Your task to perform on an android device: uninstall "Venmo" Image 0: 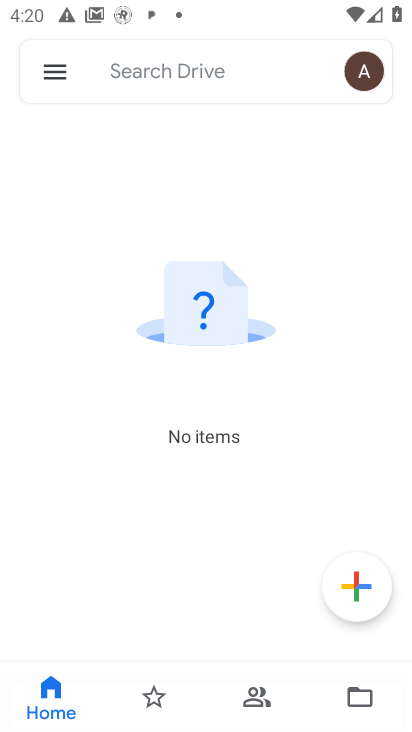
Step 0: press home button
Your task to perform on an android device: uninstall "Venmo" Image 1: 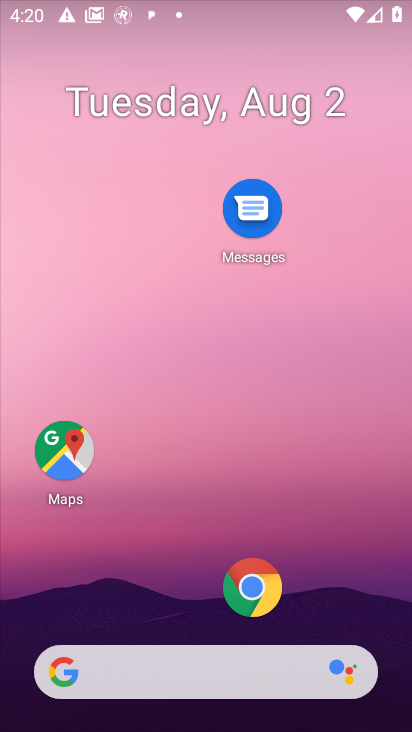
Step 1: drag from (185, 588) to (212, 99)
Your task to perform on an android device: uninstall "Venmo" Image 2: 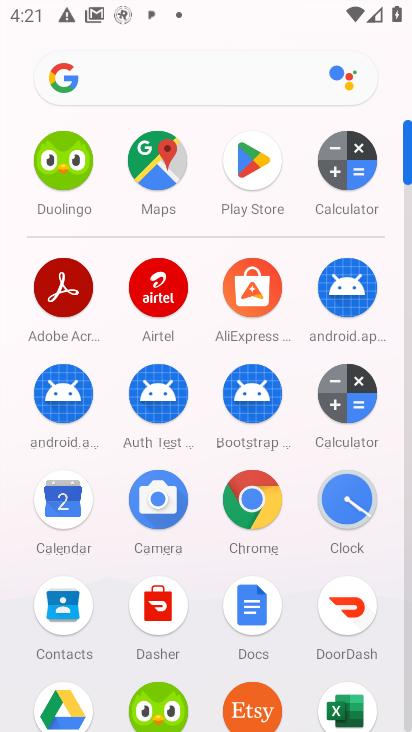
Step 2: click (259, 173)
Your task to perform on an android device: uninstall "Venmo" Image 3: 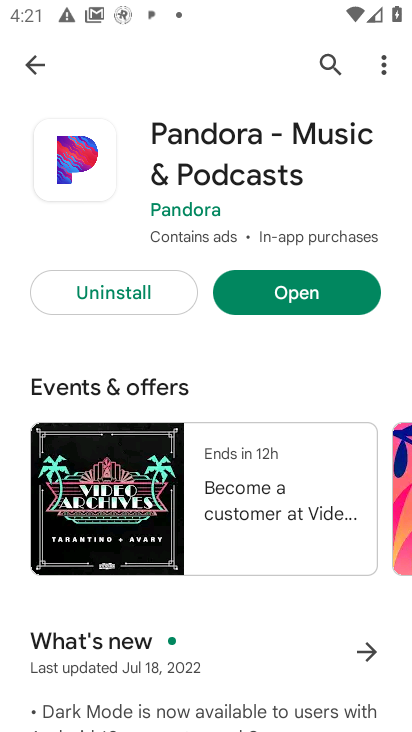
Step 3: click (320, 52)
Your task to perform on an android device: uninstall "Venmo" Image 4: 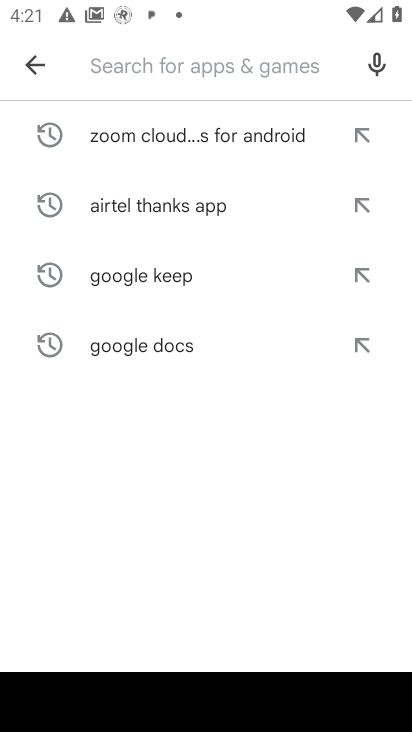
Step 4: type "Venmo"
Your task to perform on an android device: uninstall "Venmo" Image 5: 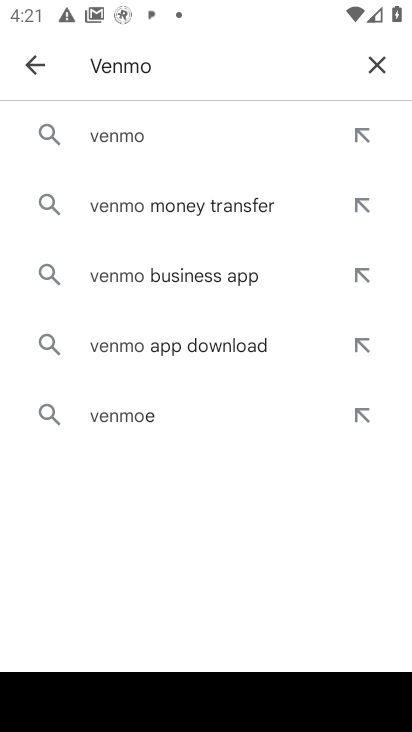
Step 5: click (146, 136)
Your task to perform on an android device: uninstall "Venmo" Image 6: 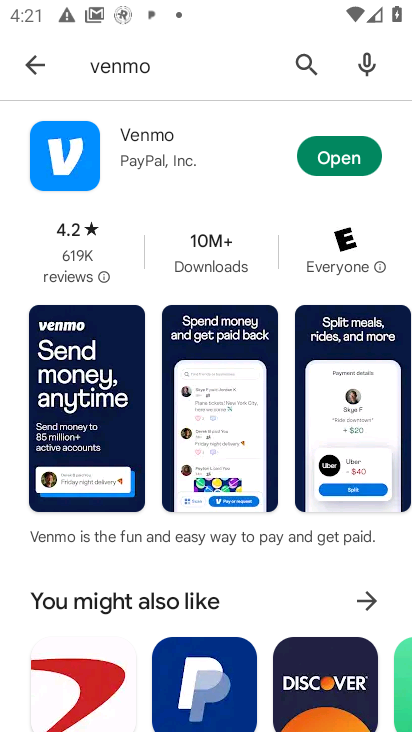
Step 6: click (161, 164)
Your task to perform on an android device: uninstall "Venmo" Image 7: 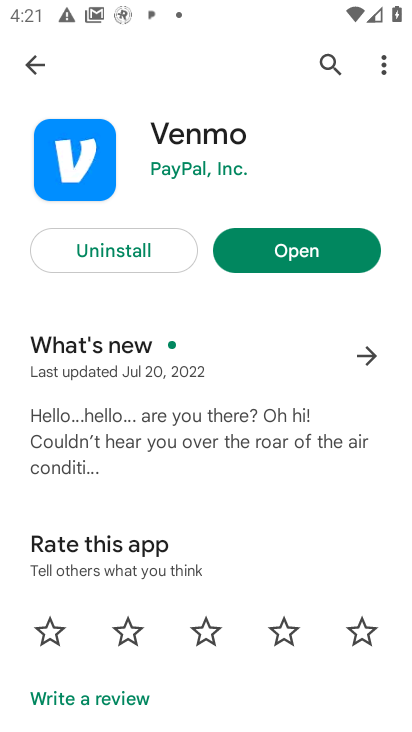
Step 7: click (155, 245)
Your task to perform on an android device: uninstall "Venmo" Image 8: 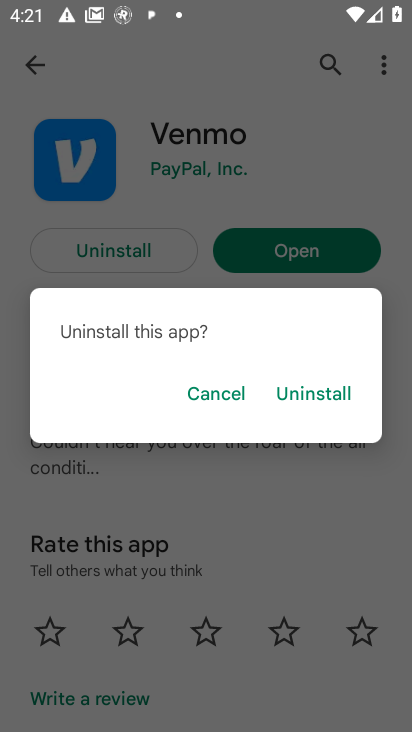
Step 8: click (304, 401)
Your task to perform on an android device: uninstall "Venmo" Image 9: 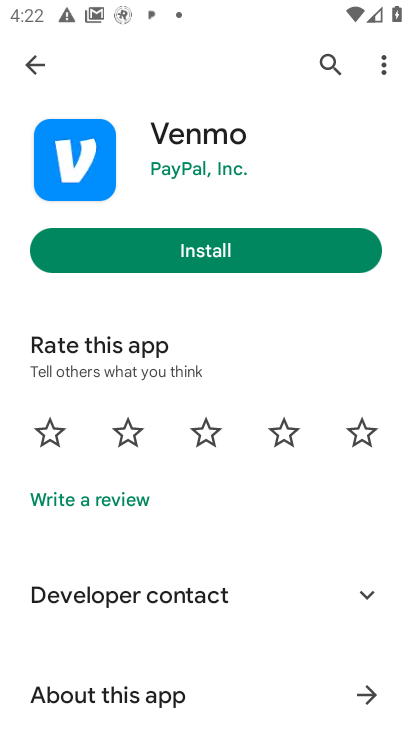
Step 9: task complete